Your task to perform on an android device: turn off location Image 0: 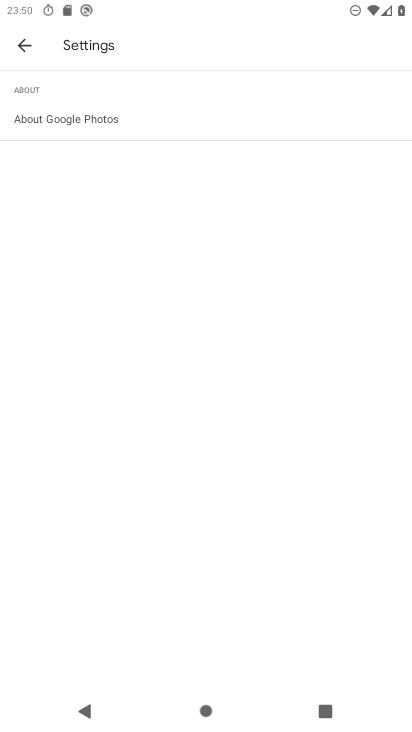
Step 0: press home button
Your task to perform on an android device: turn off location Image 1: 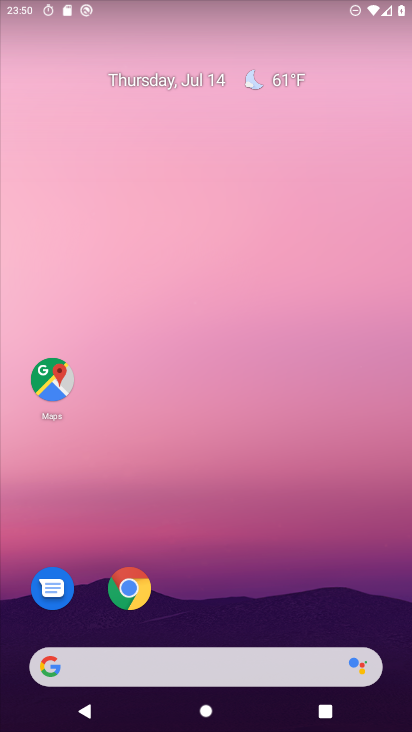
Step 1: drag from (217, 628) to (245, 85)
Your task to perform on an android device: turn off location Image 2: 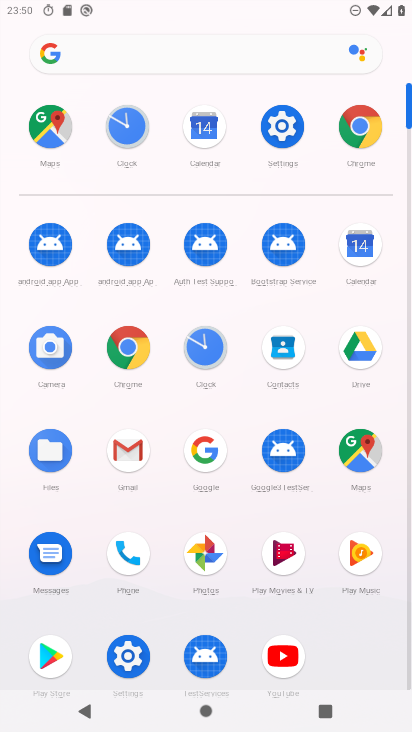
Step 2: click (121, 653)
Your task to perform on an android device: turn off location Image 3: 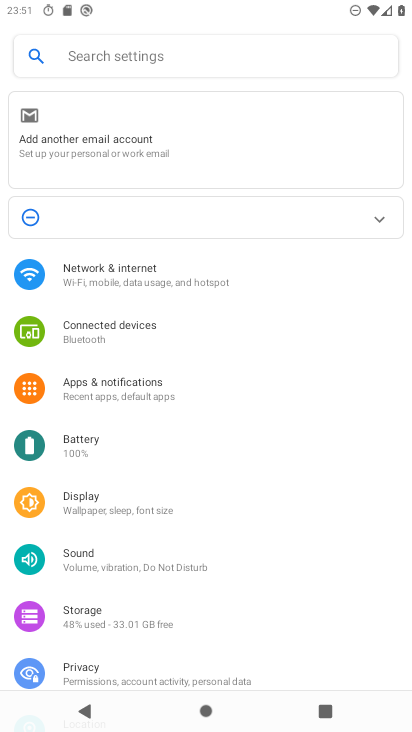
Step 3: drag from (148, 634) to (192, 368)
Your task to perform on an android device: turn off location Image 4: 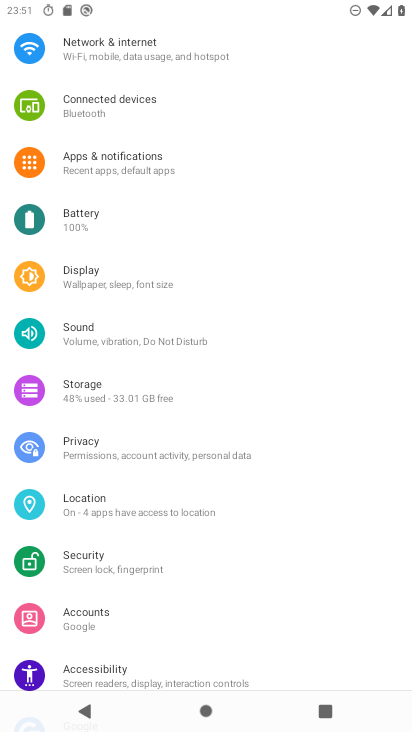
Step 4: click (94, 509)
Your task to perform on an android device: turn off location Image 5: 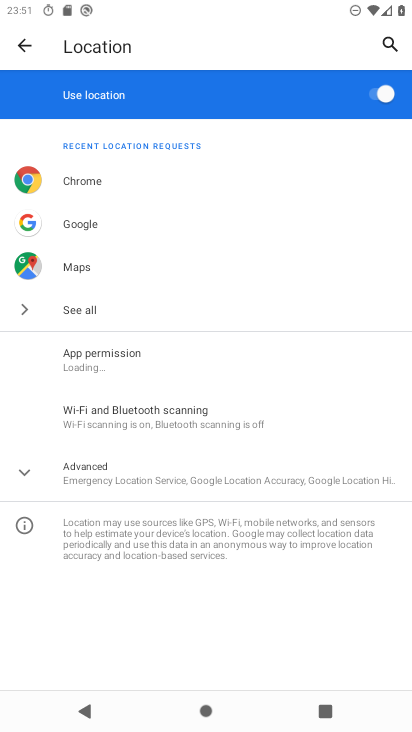
Step 5: click (351, 86)
Your task to perform on an android device: turn off location Image 6: 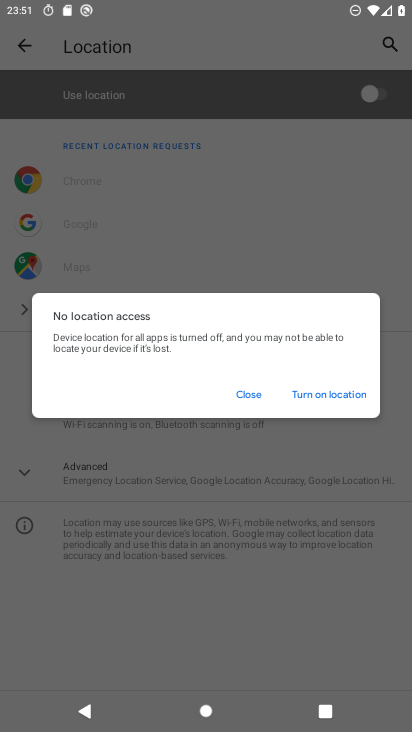
Step 6: task complete